Your task to perform on an android device: Open the calendar app, open the side menu, and click the "Day" option Image 0: 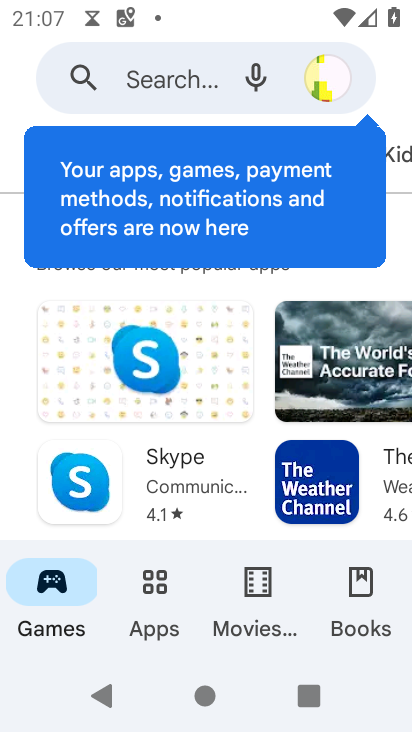
Step 0: press home button
Your task to perform on an android device: Open the calendar app, open the side menu, and click the "Day" option Image 1: 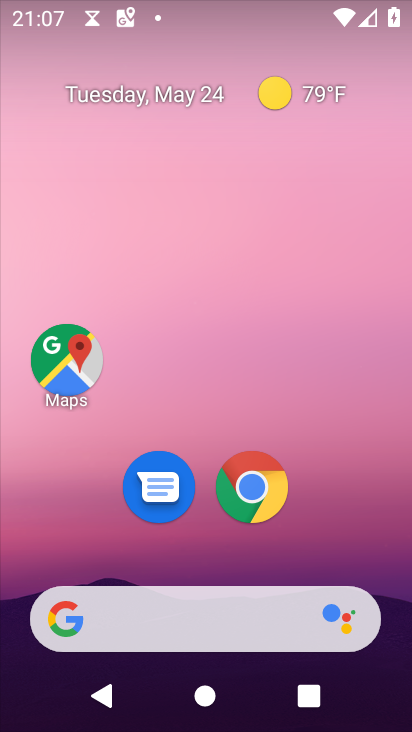
Step 1: drag from (337, 560) to (334, 1)
Your task to perform on an android device: Open the calendar app, open the side menu, and click the "Day" option Image 2: 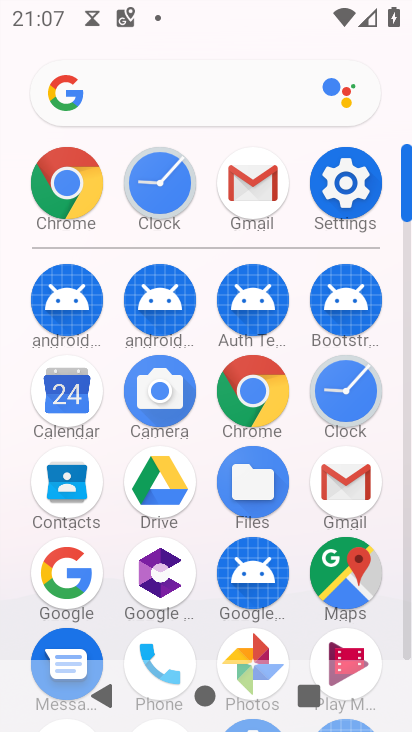
Step 2: click (55, 397)
Your task to perform on an android device: Open the calendar app, open the side menu, and click the "Day" option Image 3: 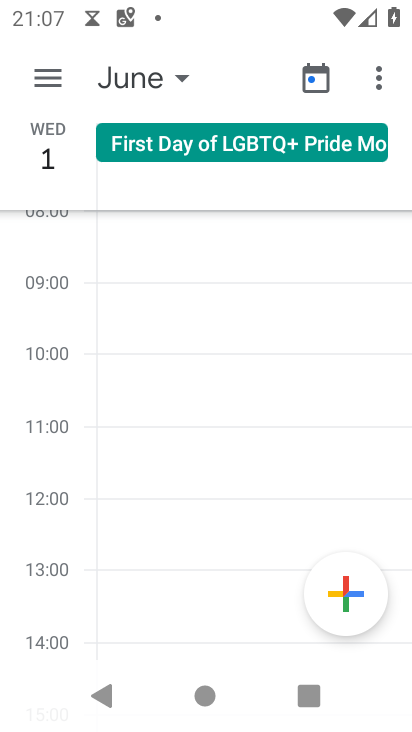
Step 3: click (41, 61)
Your task to perform on an android device: Open the calendar app, open the side menu, and click the "Day" option Image 4: 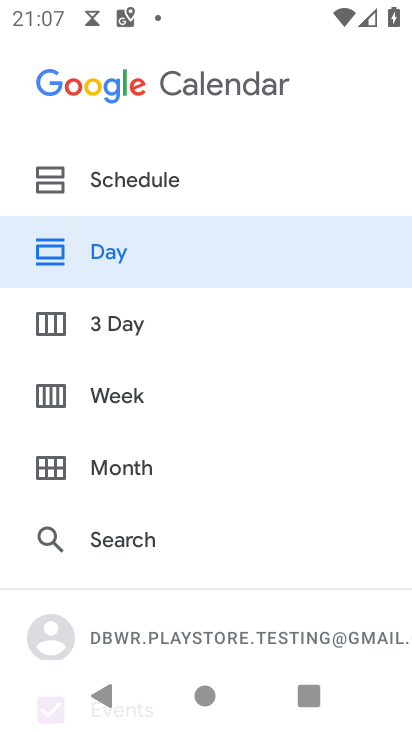
Step 4: click (119, 237)
Your task to perform on an android device: Open the calendar app, open the side menu, and click the "Day" option Image 5: 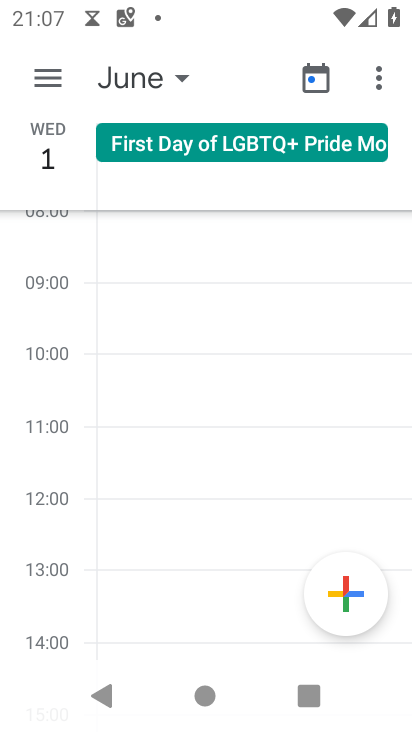
Step 5: task complete